Your task to perform on an android device: toggle notifications settings in the gmail app Image 0: 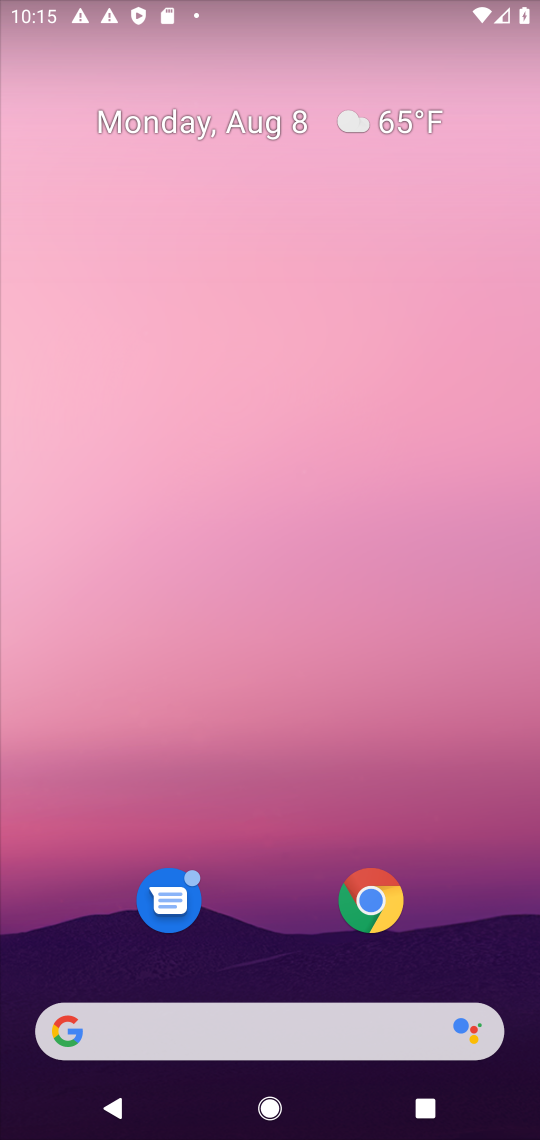
Step 0: drag from (270, 935) to (270, 151)
Your task to perform on an android device: toggle notifications settings in the gmail app Image 1: 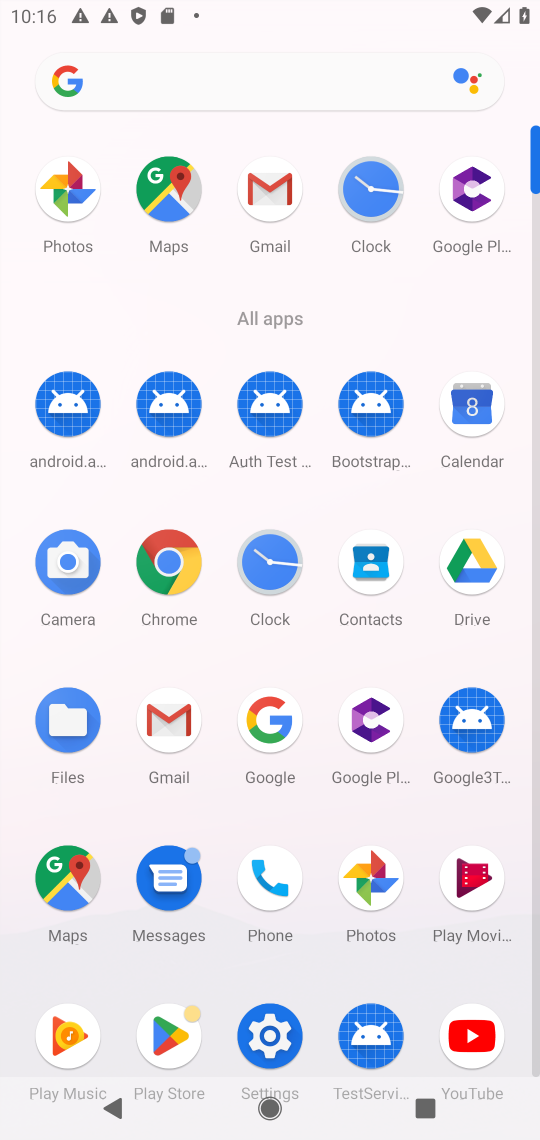
Step 1: click (269, 1027)
Your task to perform on an android device: toggle notifications settings in the gmail app Image 2: 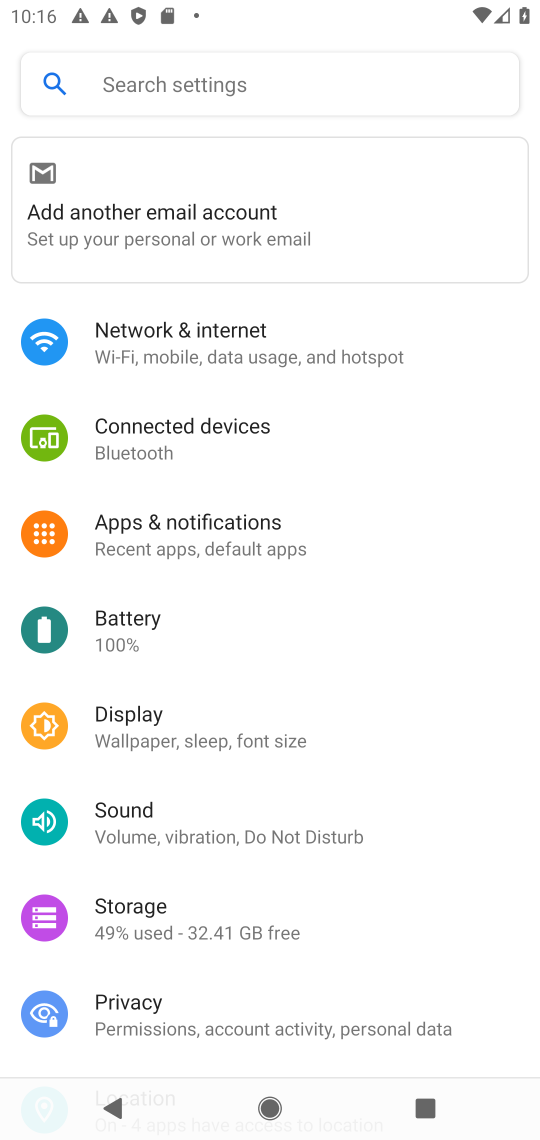
Step 2: click (187, 541)
Your task to perform on an android device: toggle notifications settings in the gmail app Image 3: 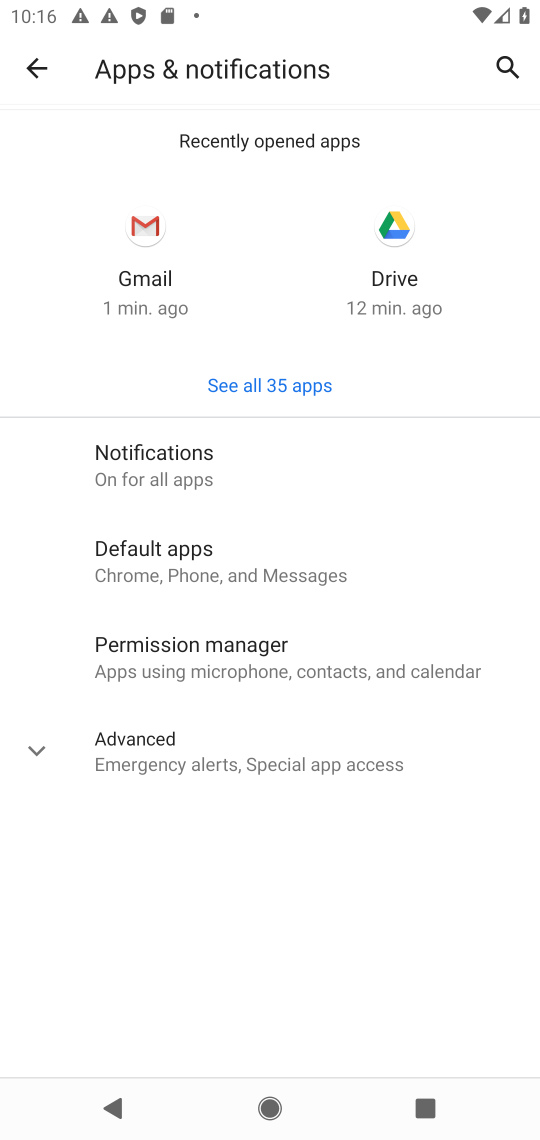
Step 3: click (149, 462)
Your task to perform on an android device: toggle notifications settings in the gmail app Image 4: 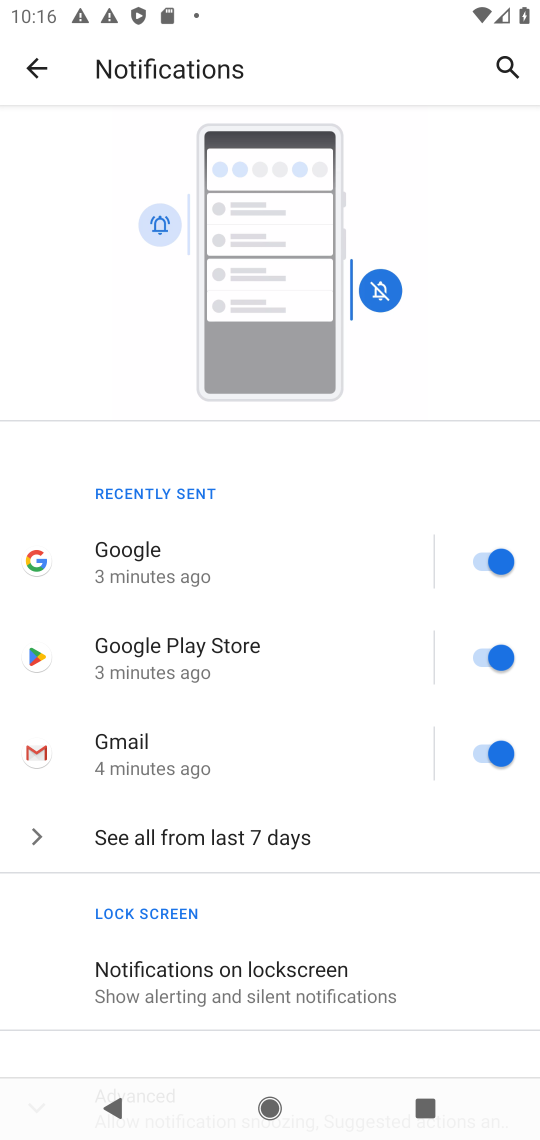
Step 4: click (176, 759)
Your task to perform on an android device: toggle notifications settings in the gmail app Image 5: 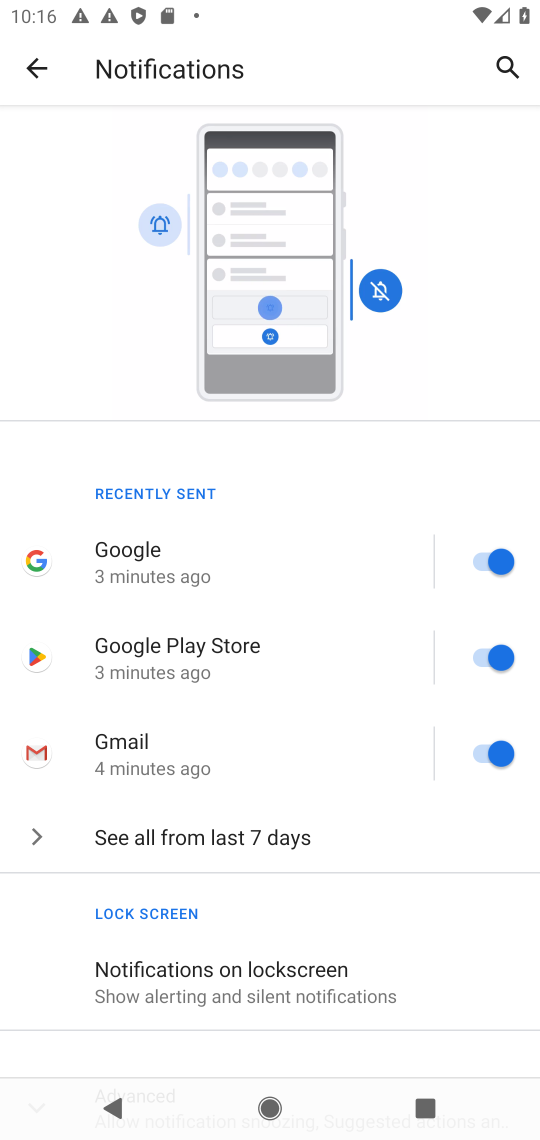
Step 5: click (216, 986)
Your task to perform on an android device: toggle notifications settings in the gmail app Image 6: 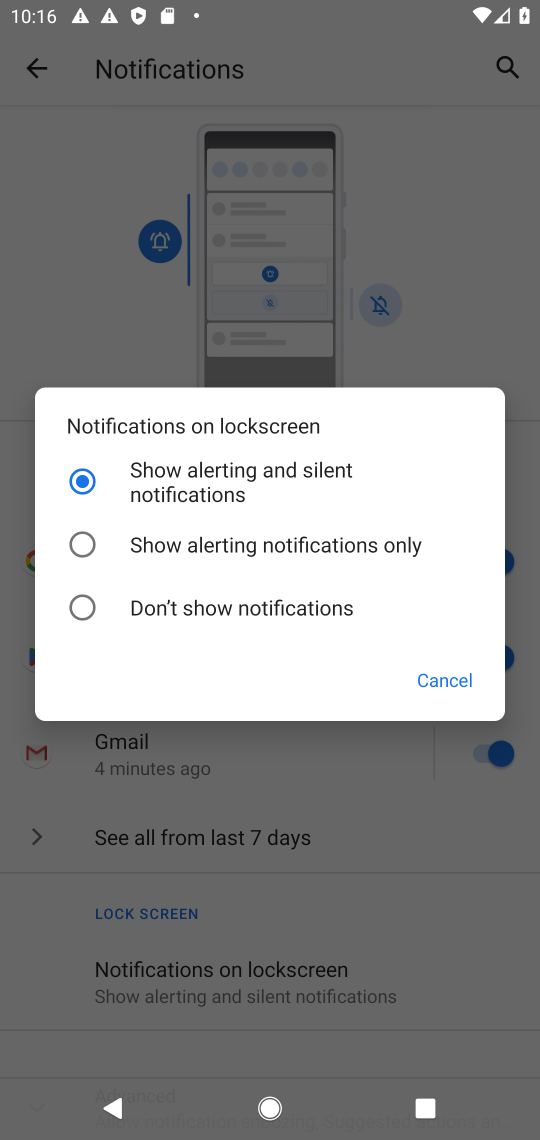
Step 6: click (82, 615)
Your task to perform on an android device: toggle notifications settings in the gmail app Image 7: 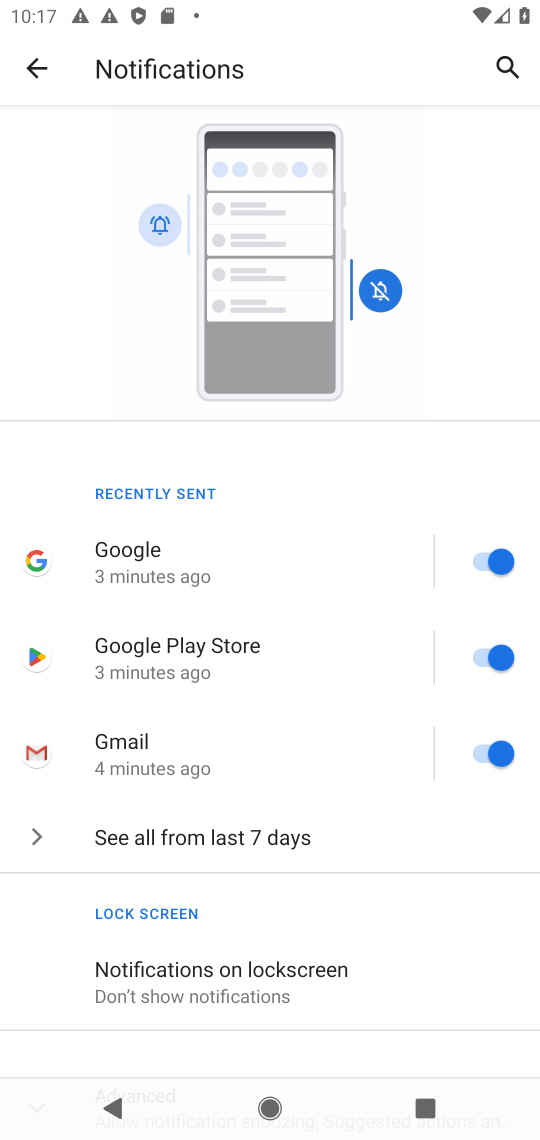
Step 7: task complete